Your task to perform on an android device: What's the weather? Image 0: 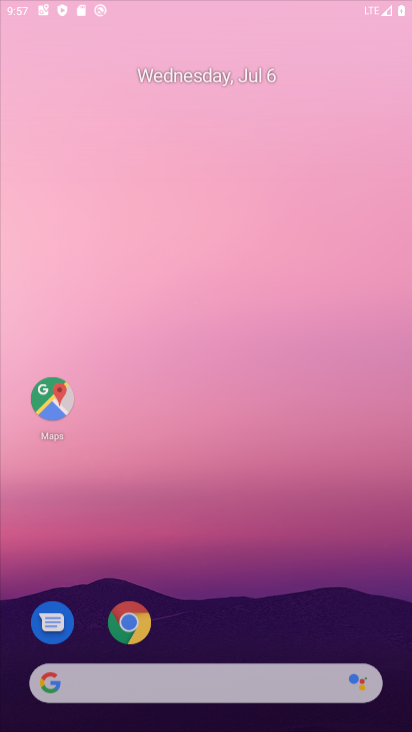
Step 0: click (293, 118)
Your task to perform on an android device: What's the weather? Image 1: 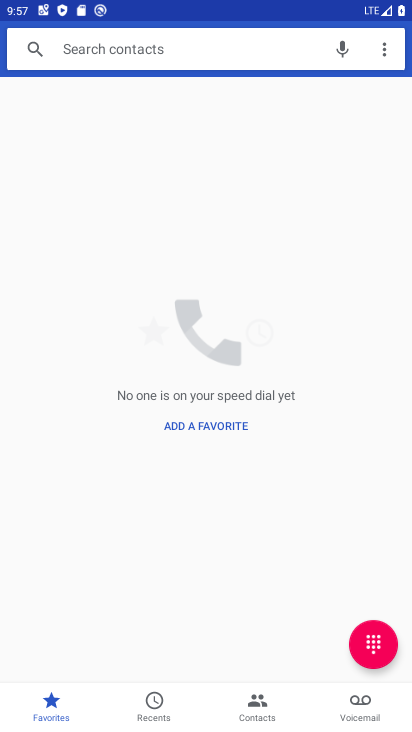
Step 1: press home button
Your task to perform on an android device: What's the weather? Image 2: 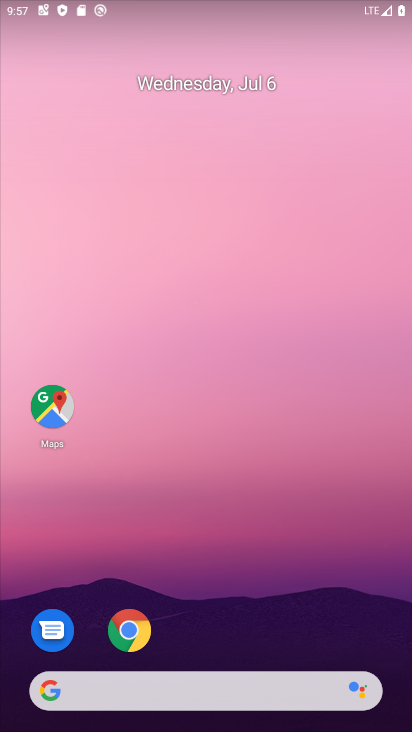
Step 2: drag from (15, 273) to (393, 257)
Your task to perform on an android device: What's the weather? Image 3: 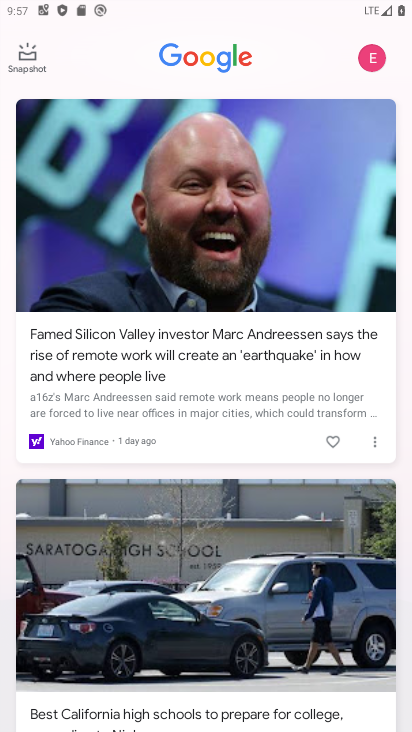
Step 3: drag from (195, 70) to (195, 315)
Your task to perform on an android device: What's the weather? Image 4: 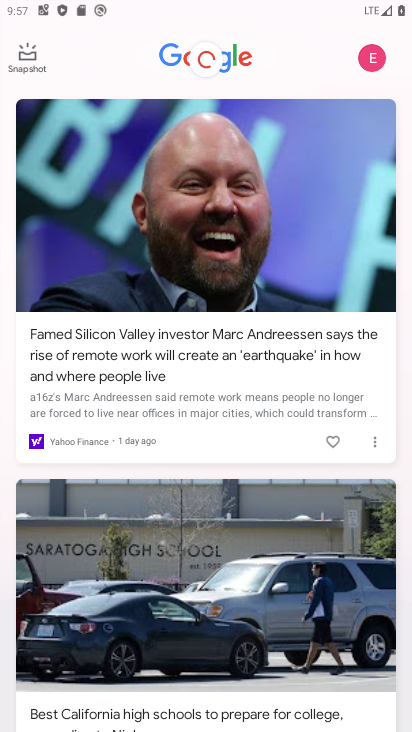
Step 4: drag from (405, 469) to (3, 459)
Your task to perform on an android device: What's the weather? Image 5: 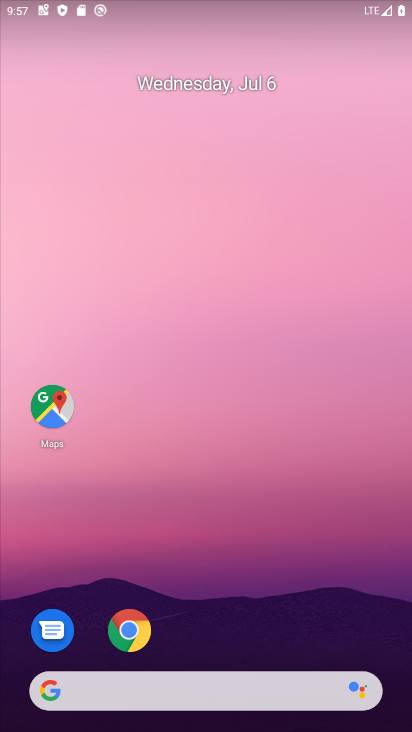
Step 5: click (125, 693)
Your task to perform on an android device: What's the weather? Image 6: 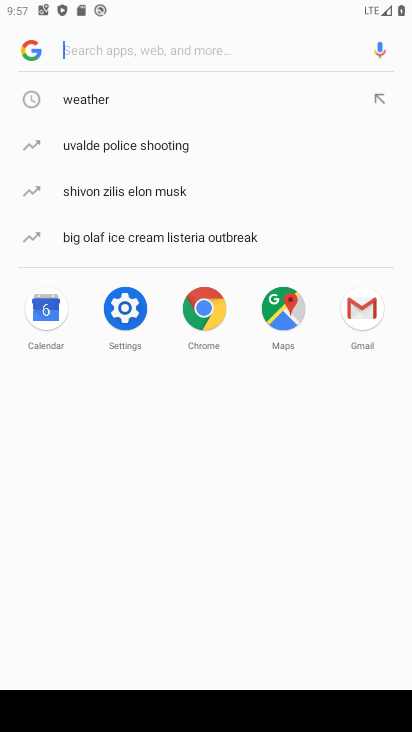
Step 6: click (85, 97)
Your task to perform on an android device: What's the weather? Image 7: 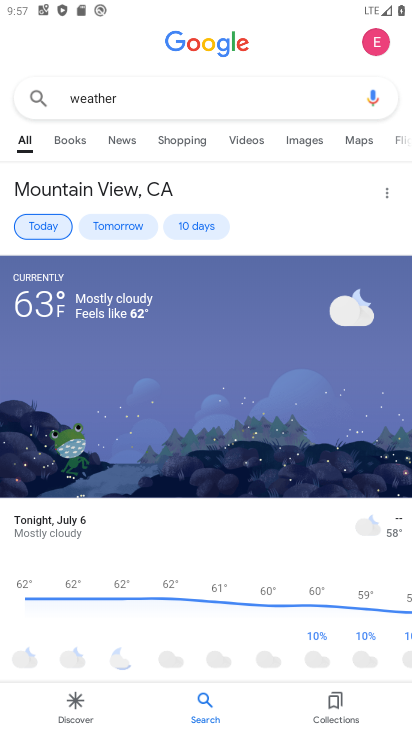
Step 7: task complete